Your task to perform on an android device: Do I have any events today? Image 0: 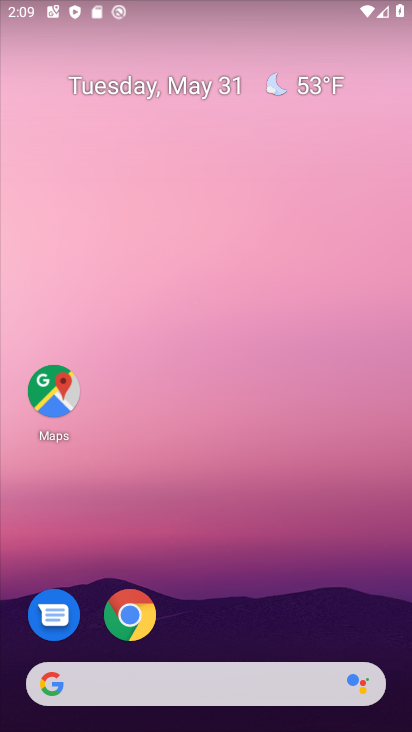
Step 0: drag from (216, 614) to (272, 55)
Your task to perform on an android device: Do I have any events today? Image 1: 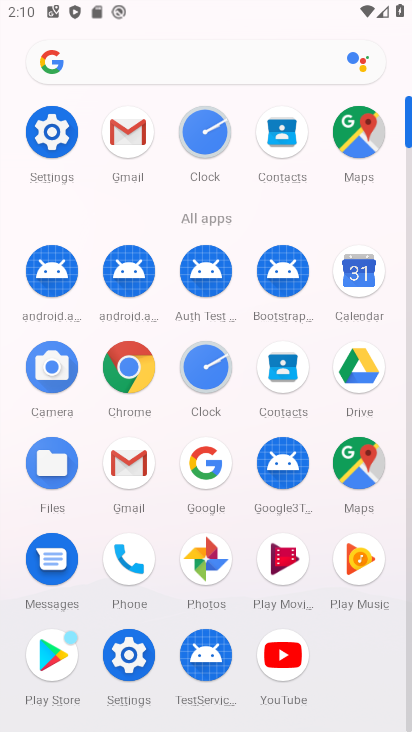
Step 1: click (364, 280)
Your task to perform on an android device: Do I have any events today? Image 2: 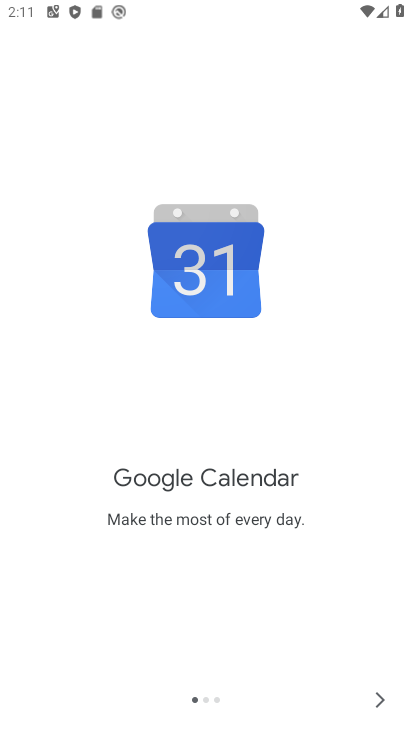
Step 2: click (379, 691)
Your task to perform on an android device: Do I have any events today? Image 3: 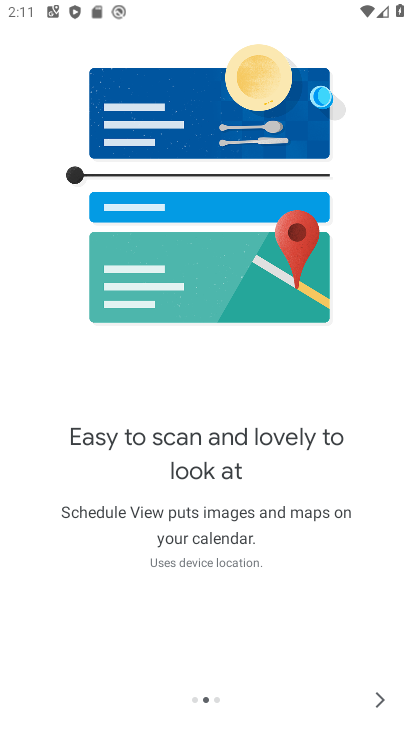
Step 3: click (379, 693)
Your task to perform on an android device: Do I have any events today? Image 4: 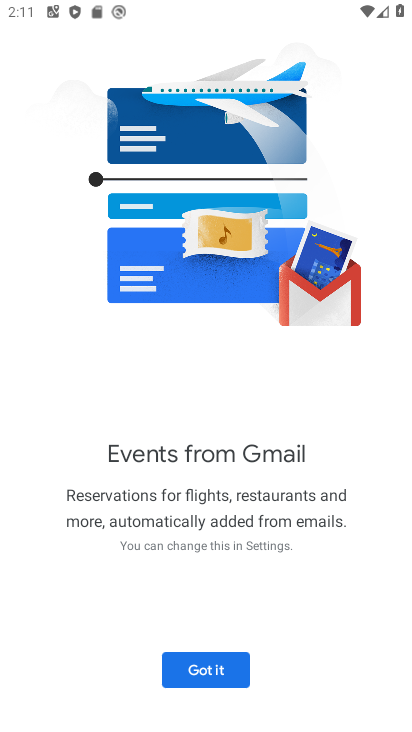
Step 4: click (379, 697)
Your task to perform on an android device: Do I have any events today? Image 5: 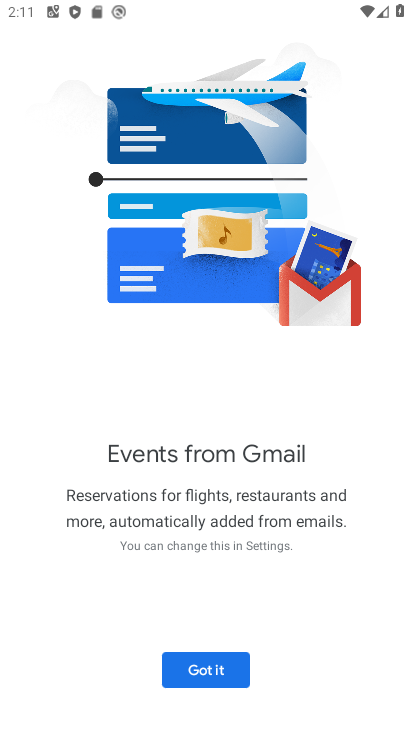
Step 5: click (237, 669)
Your task to perform on an android device: Do I have any events today? Image 6: 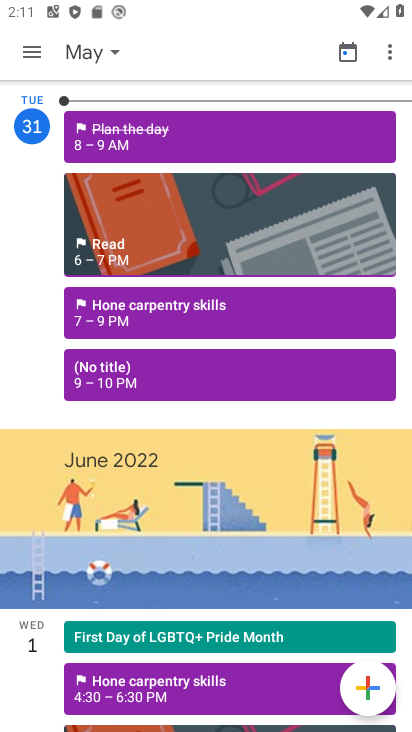
Step 6: click (120, 313)
Your task to perform on an android device: Do I have any events today? Image 7: 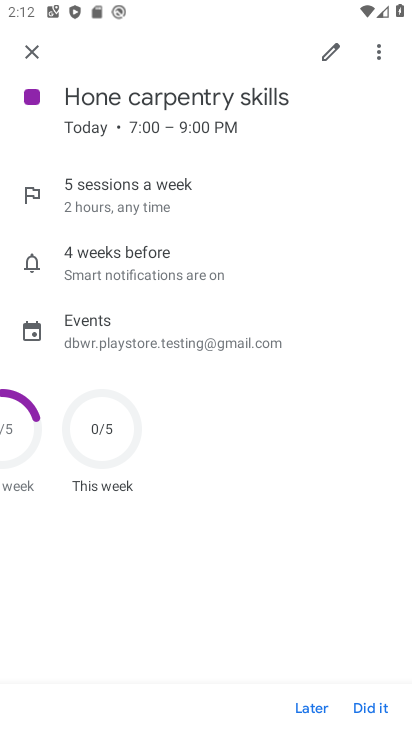
Step 7: task complete